Your task to perform on an android device: open app "PlayWell" (install if not already installed) and go to login screen Image 0: 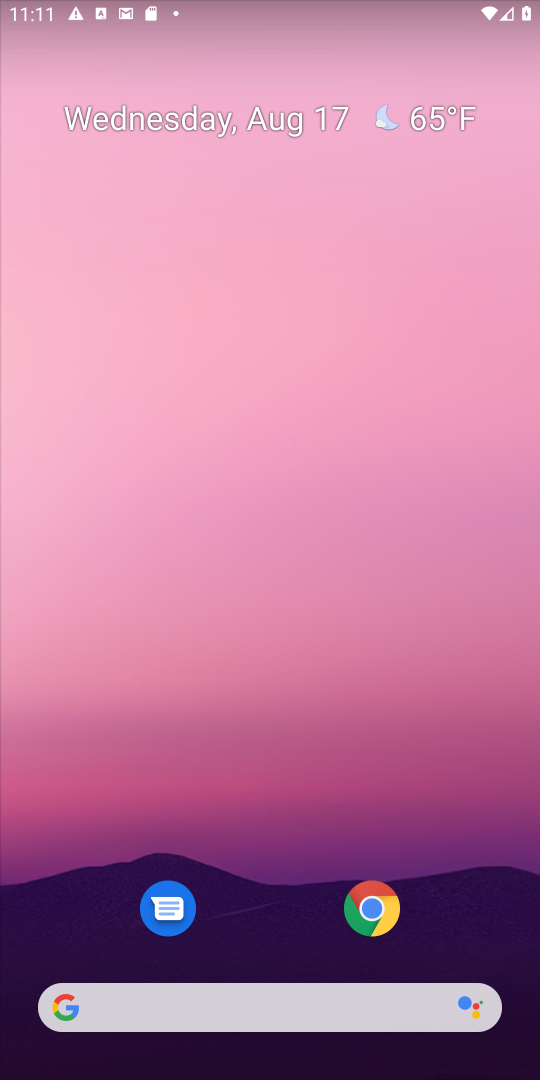
Step 0: drag from (268, 941) to (353, 35)
Your task to perform on an android device: open app "PlayWell" (install if not already installed) and go to login screen Image 1: 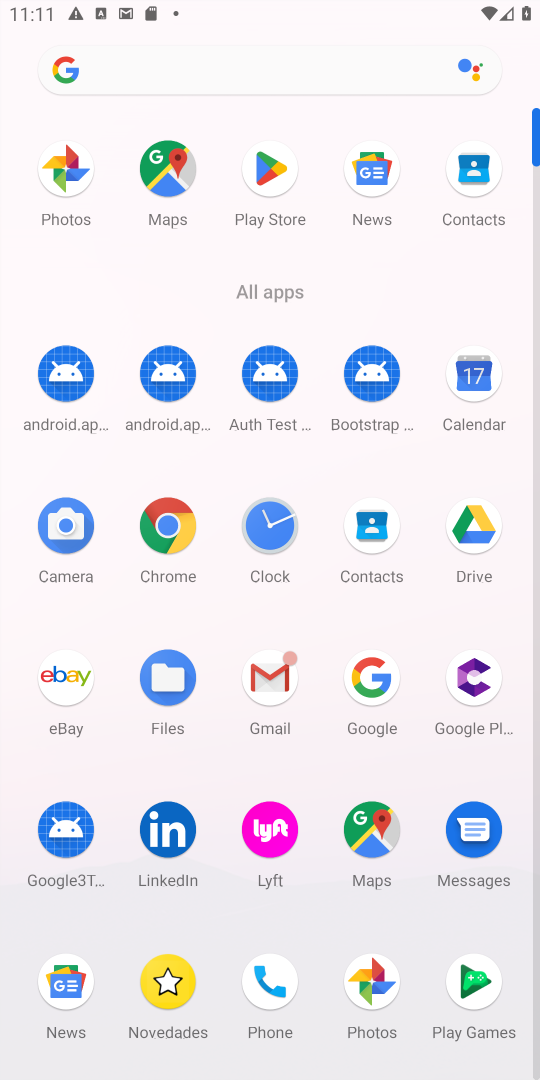
Step 1: click (275, 172)
Your task to perform on an android device: open app "PlayWell" (install if not already installed) and go to login screen Image 2: 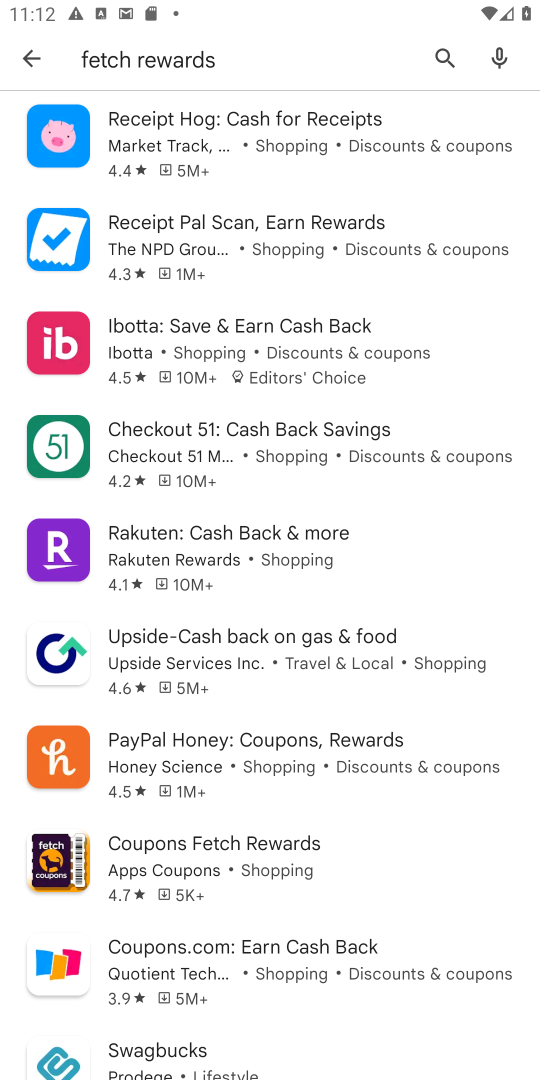
Step 2: click (437, 55)
Your task to perform on an android device: open app "PlayWell" (install if not already installed) and go to login screen Image 3: 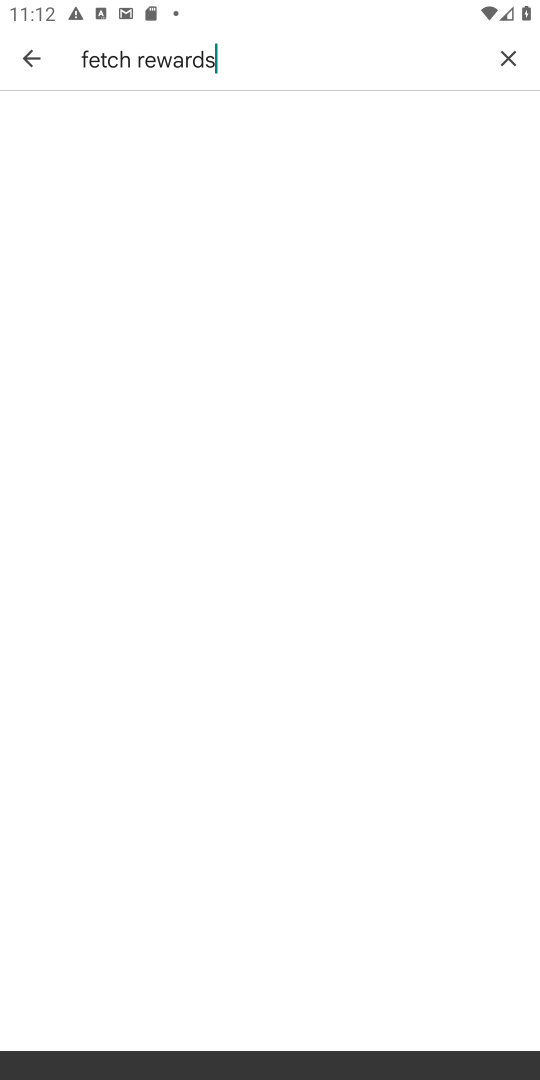
Step 3: click (518, 60)
Your task to perform on an android device: open app "PlayWell" (install if not already installed) and go to login screen Image 4: 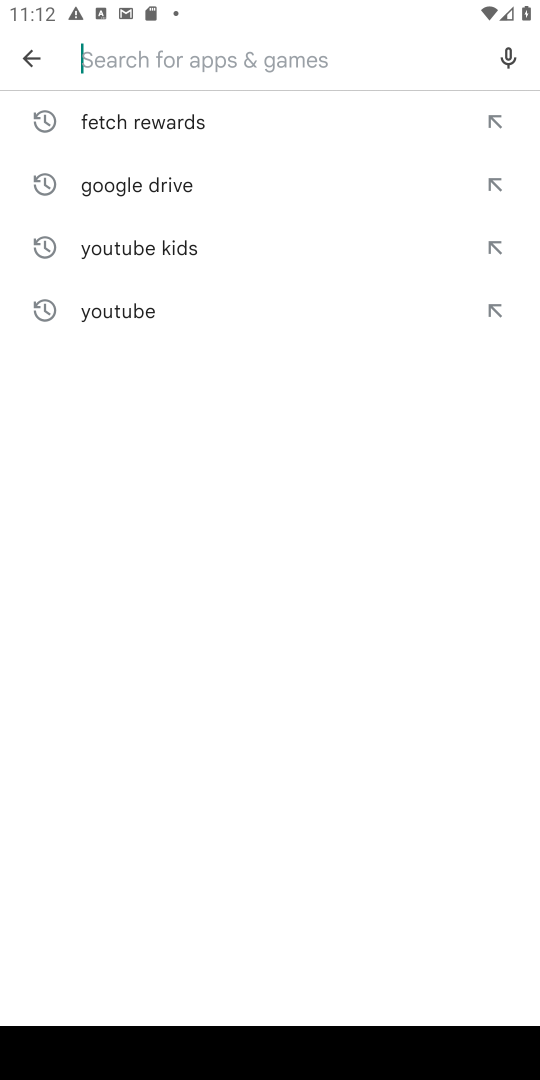
Step 4: type "playwell"
Your task to perform on an android device: open app "PlayWell" (install if not already installed) and go to login screen Image 5: 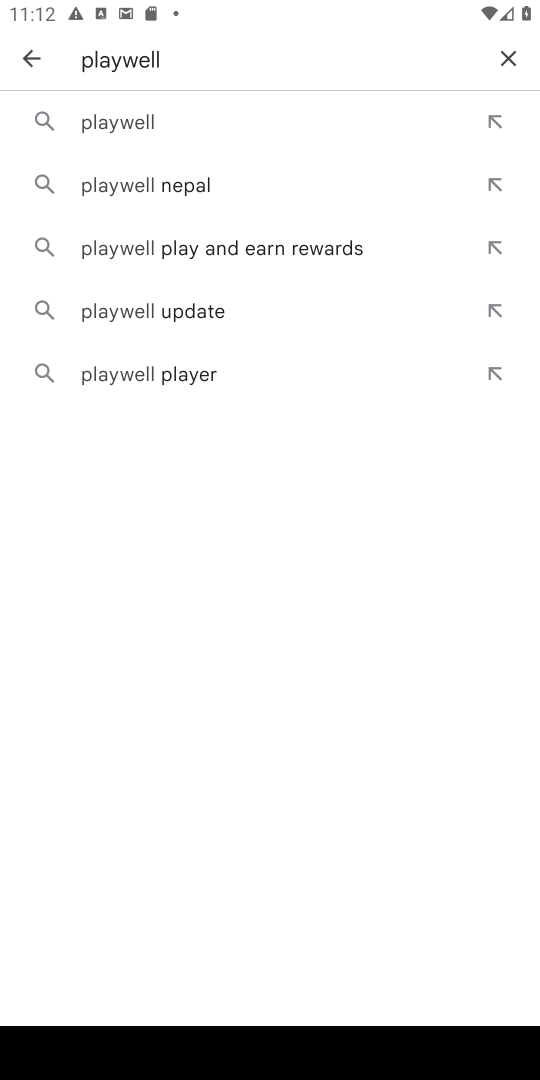
Step 5: click (143, 119)
Your task to perform on an android device: open app "PlayWell" (install if not already installed) and go to login screen Image 6: 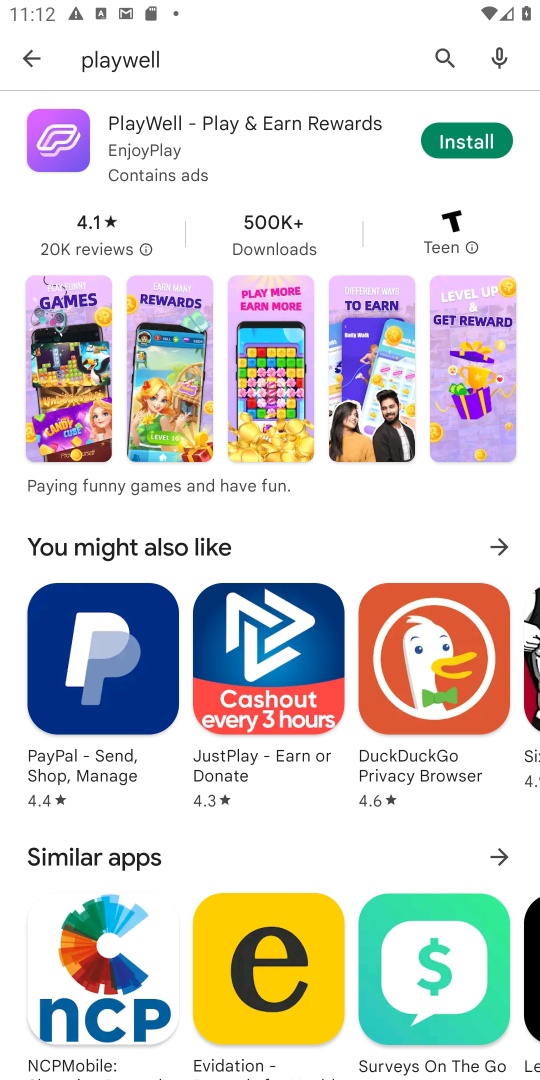
Step 6: click (458, 137)
Your task to perform on an android device: open app "PlayWell" (install if not already installed) and go to login screen Image 7: 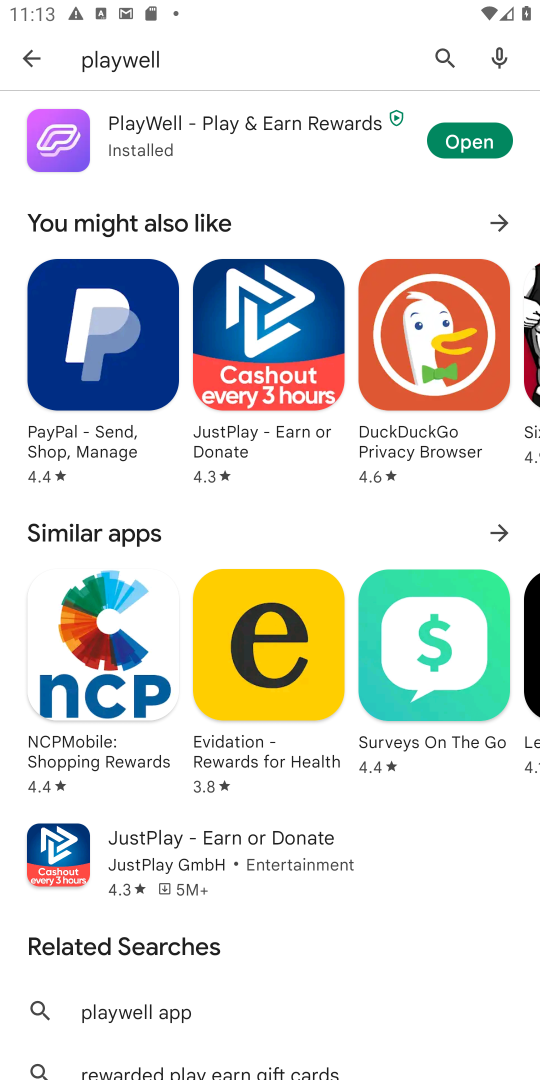
Step 7: click (496, 142)
Your task to perform on an android device: open app "PlayWell" (install if not already installed) and go to login screen Image 8: 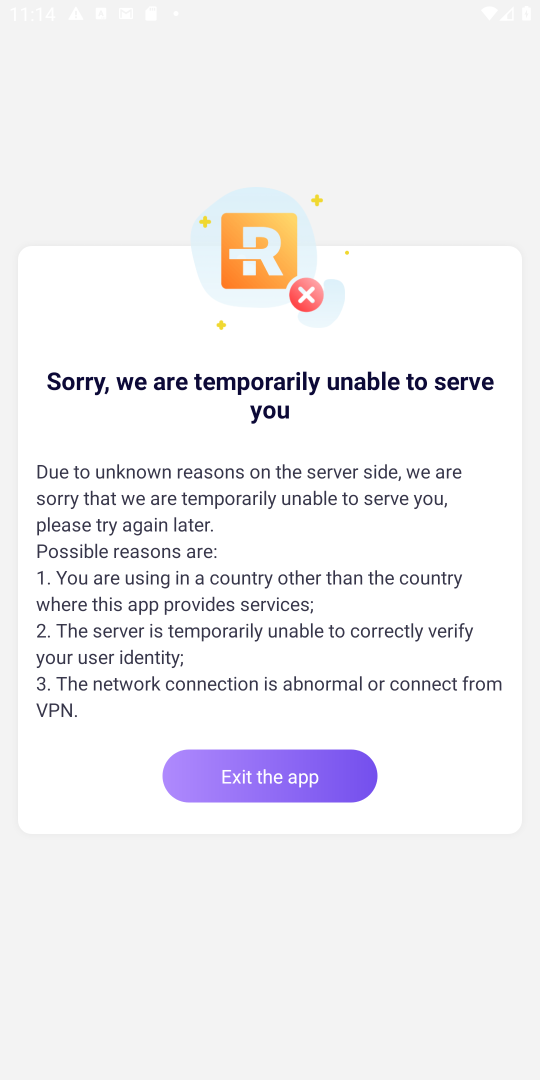
Step 8: task complete